Your task to perform on an android device: turn off javascript in the chrome app Image 0: 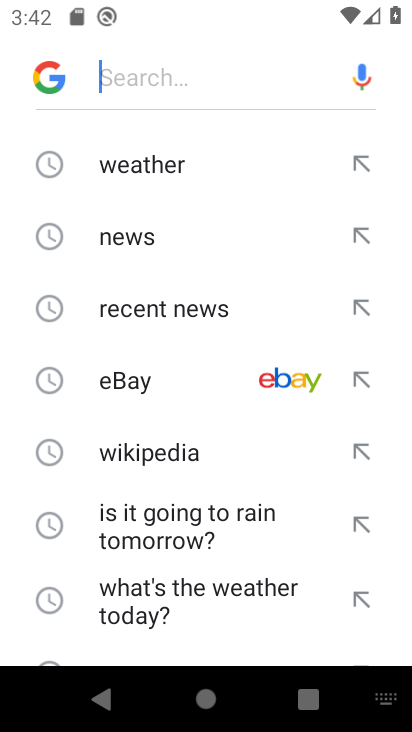
Step 0: press home button
Your task to perform on an android device: turn off javascript in the chrome app Image 1: 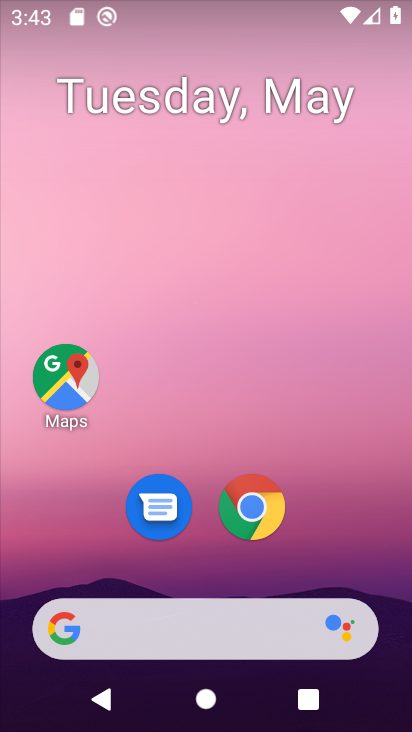
Step 1: click (257, 505)
Your task to perform on an android device: turn off javascript in the chrome app Image 2: 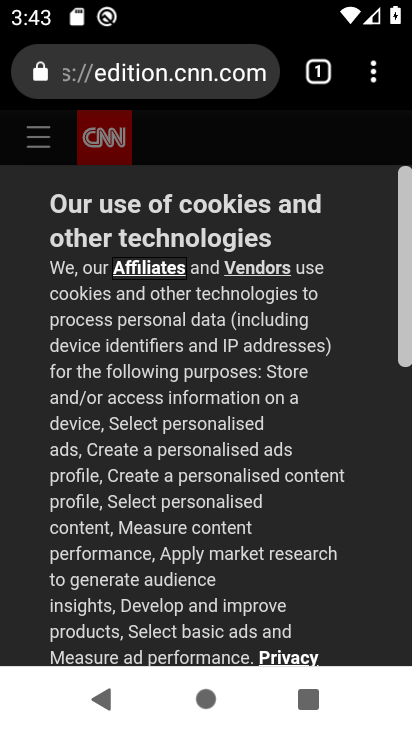
Step 2: click (377, 74)
Your task to perform on an android device: turn off javascript in the chrome app Image 3: 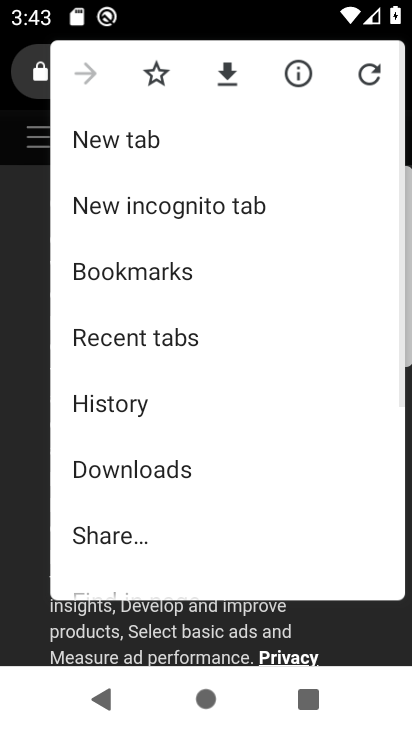
Step 3: drag from (212, 542) to (212, 194)
Your task to perform on an android device: turn off javascript in the chrome app Image 4: 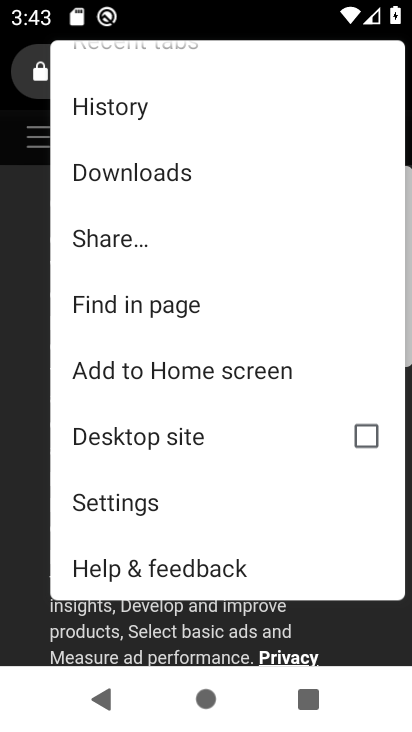
Step 4: click (219, 504)
Your task to perform on an android device: turn off javascript in the chrome app Image 5: 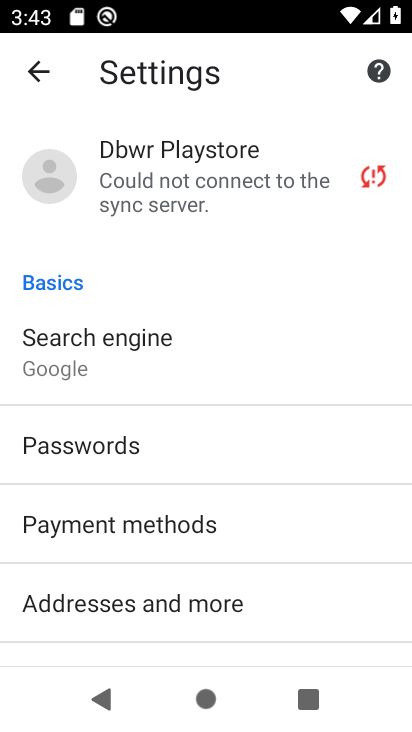
Step 5: drag from (176, 581) to (181, 179)
Your task to perform on an android device: turn off javascript in the chrome app Image 6: 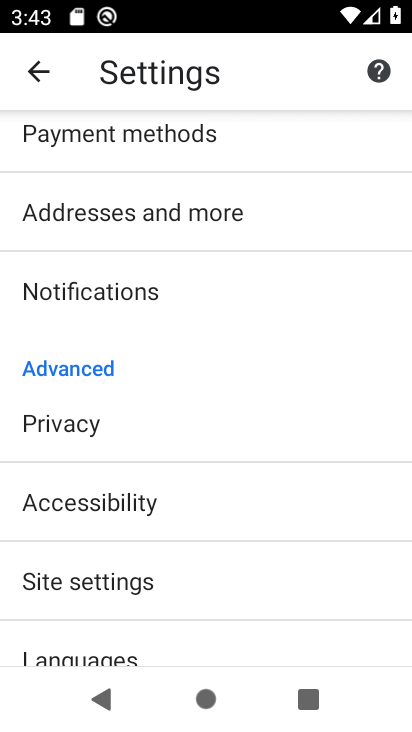
Step 6: click (97, 599)
Your task to perform on an android device: turn off javascript in the chrome app Image 7: 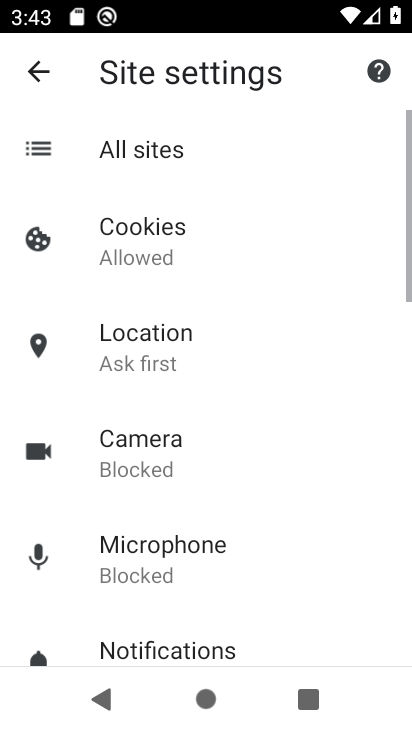
Step 7: drag from (175, 611) to (198, 310)
Your task to perform on an android device: turn off javascript in the chrome app Image 8: 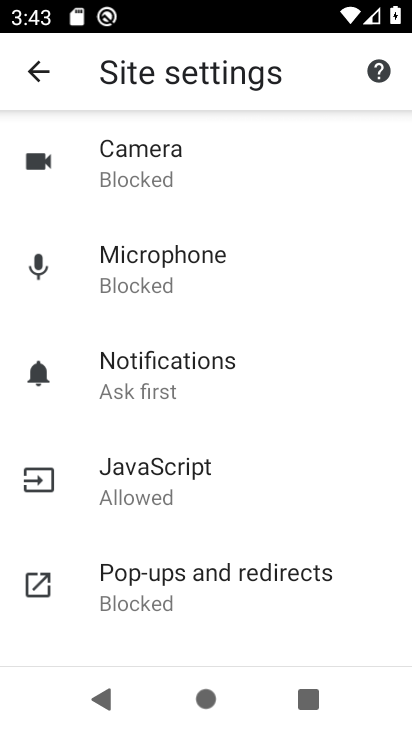
Step 8: click (175, 479)
Your task to perform on an android device: turn off javascript in the chrome app Image 9: 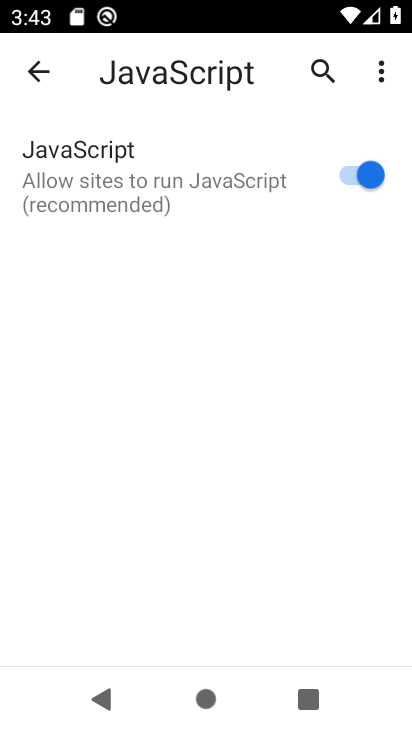
Step 9: click (347, 183)
Your task to perform on an android device: turn off javascript in the chrome app Image 10: 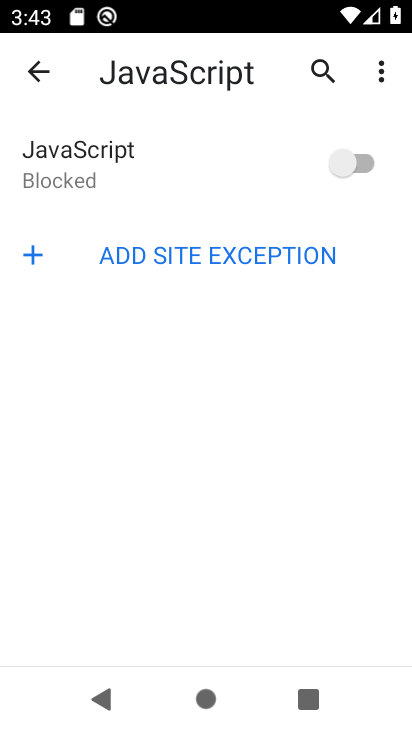
Step 10: task complete